Your task to perform on an android device: Open the web browser Image 0: 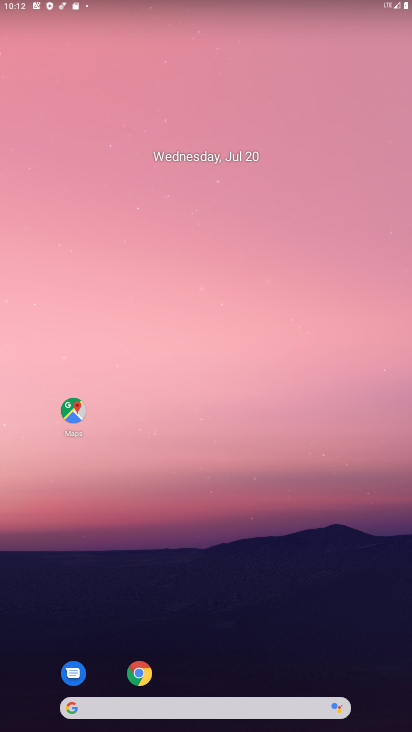
Step 0: click (140, 675)
Your task to perform on an android device: Open the web browser Image 1: 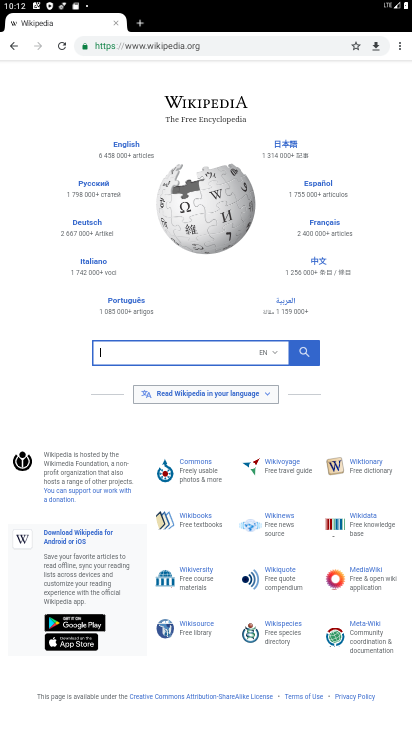
Step 1: task complete